Your task to perform on an android device: turn on the 24-hour format for clock Image 0: 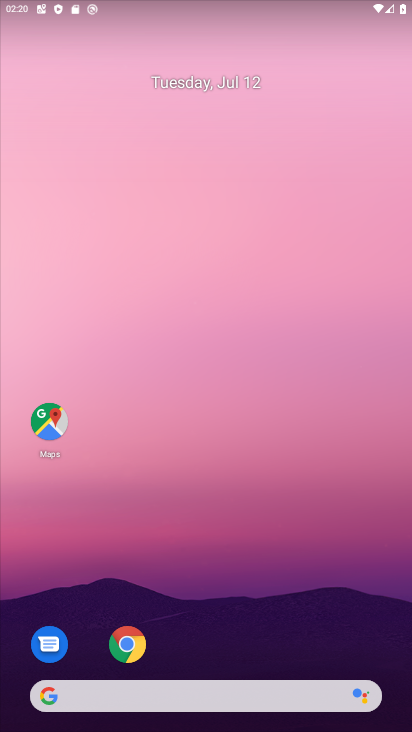
Step 0: drag from (244, 675) to (189, 131)
Your task to perform on an android device: turn on the 24-hour format for clock Image 1: 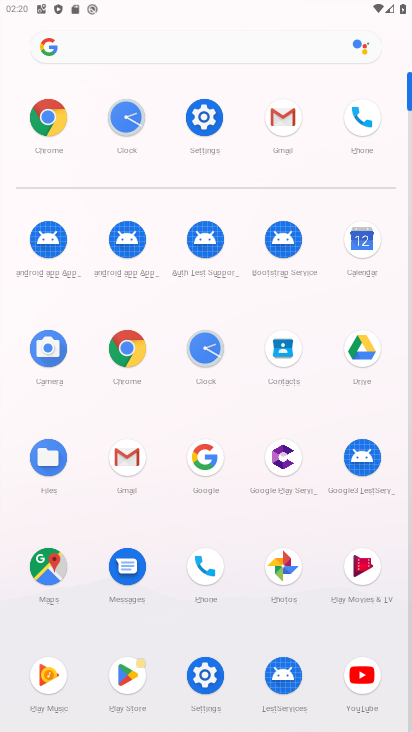
Step 1: click (214, 349)
Your task to perform on an android device: turn on the 24-hour format for clock Image 2: 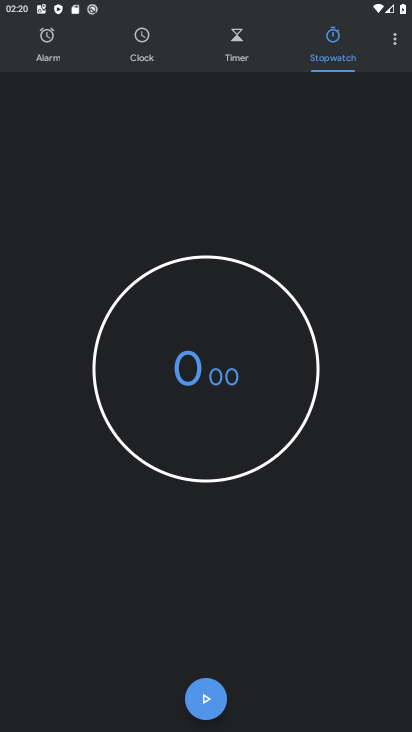
Step 2: drag from (391, 44) to (349, 76)
Your task to perform on an android device: turn on the 24-hour format for clock Image 3: 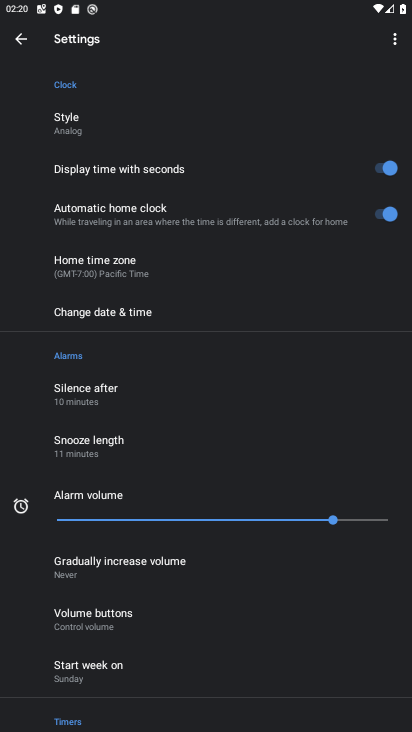
Step 3: click (126, 323)
Your task to perform on an android device: turn on the 24-hour format for clock Image 4: 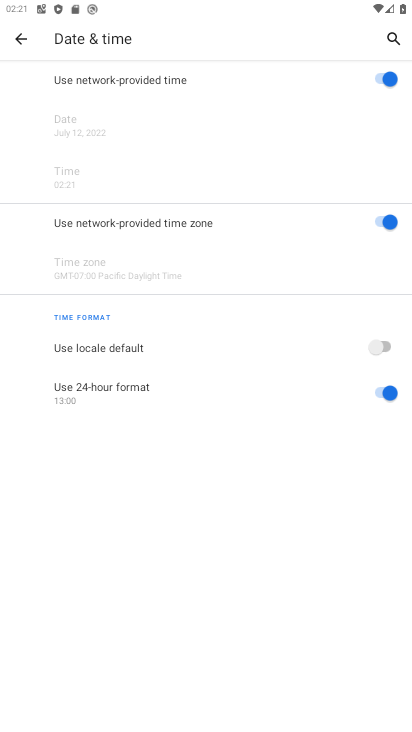
Step 4: task complete